Your task to perform on an android device: open wifi settings Image 0: 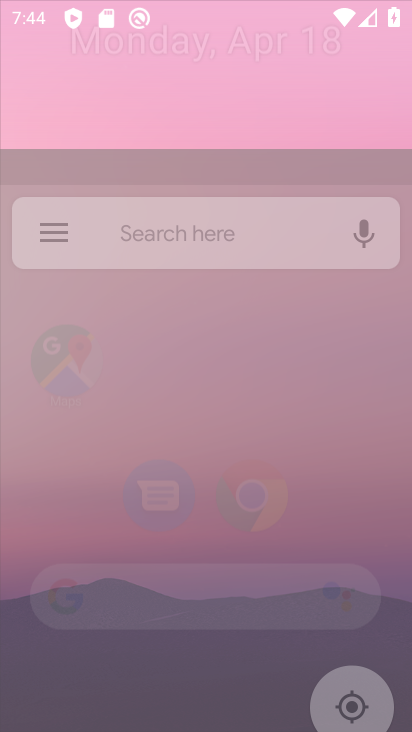
Step 0: click (229, 0)
Your task to perform on an android device: open wifi settings Image 1: 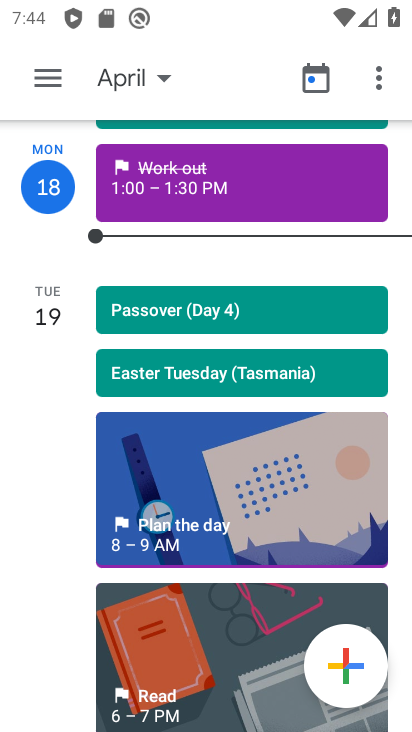
Step 1: press home button
Your task to perform on an android device: open wifi settings Image 2: 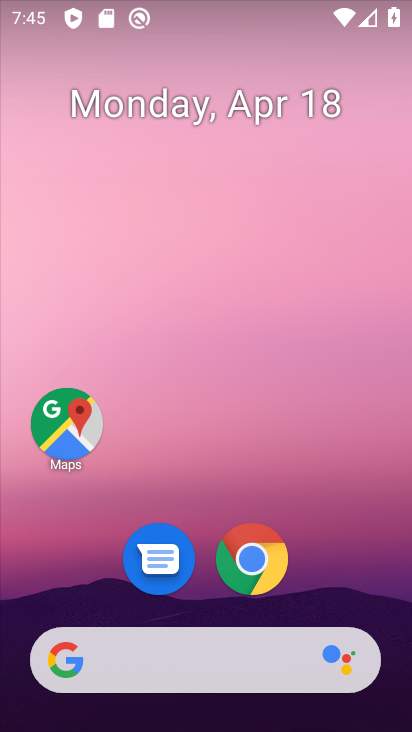
Step 2: drag from (197, 531) to (259, 10)
Your task to perform on an android device: open wifi settings Image 3: 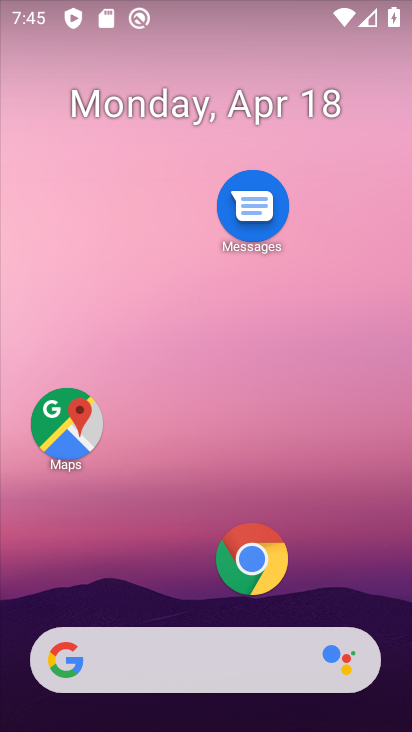
Step 3: drag from (175, 481) to (211, 83)
Your task to perform on an android device: open wifi settings Image 4: 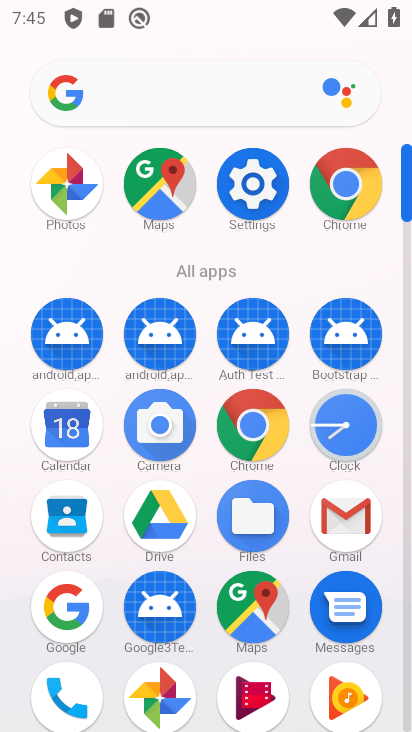
Step 4: click (249, 183)
Your task to perform on an android device: open wifi settings Image 5: 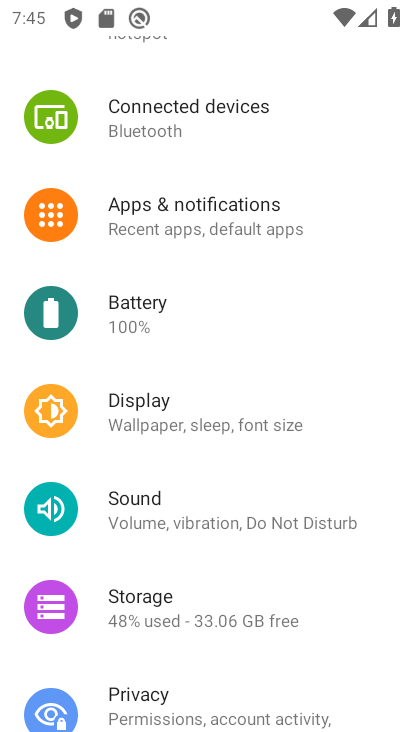
Step 5: drag from (253, 186) to (246, 592)
Your task to perform on an android device: open wifi settings Image 6: 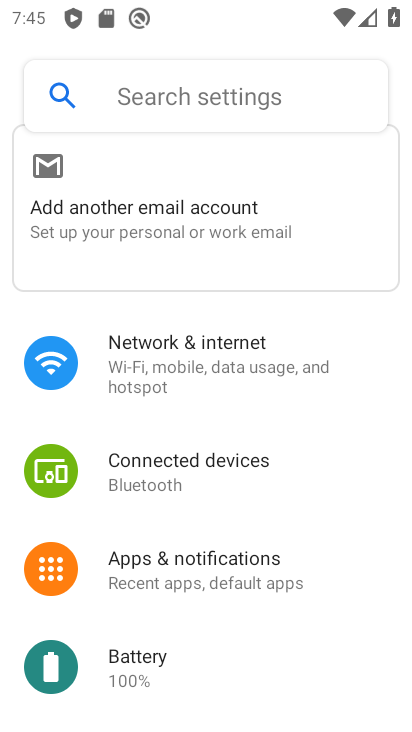
Step 6: click (214, 364)
Your task to perform on an android device: open wifi settings Image 7: 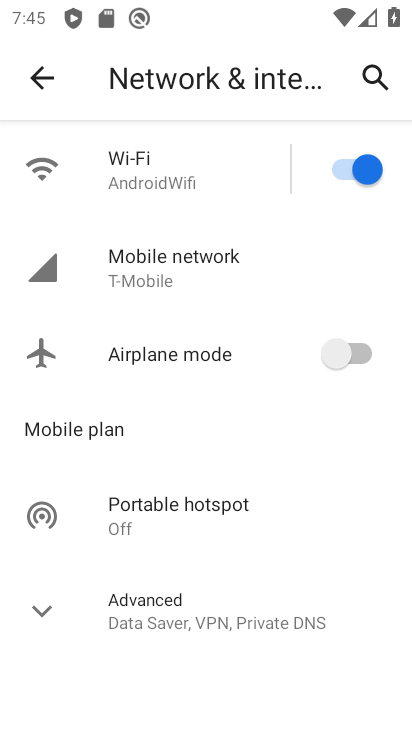
Step 7: click (173, 174)
Your task to perform on an android device: open wifi settings Image 8: 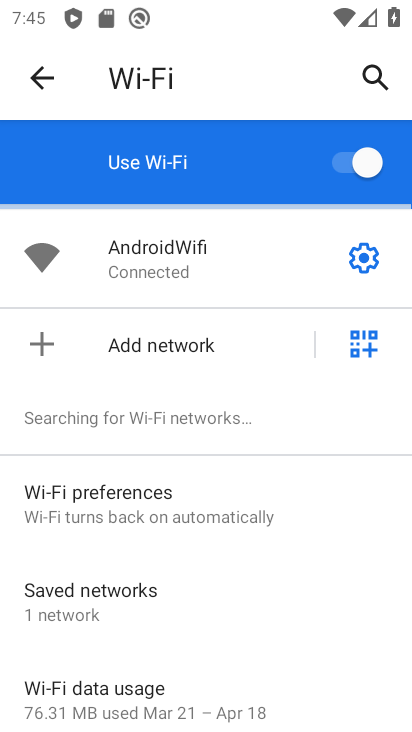
Step 8: task complete